Your task to perform on an android device: Check the news Image 0: 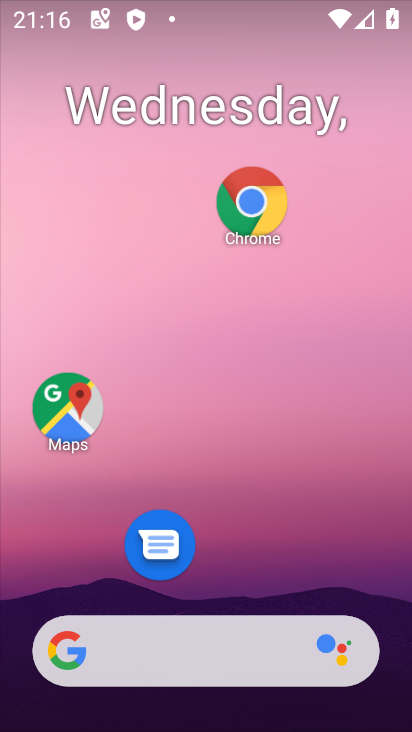
Step 0: click (206, 662)
Your task to perform on an android device: Check the news Image 1: 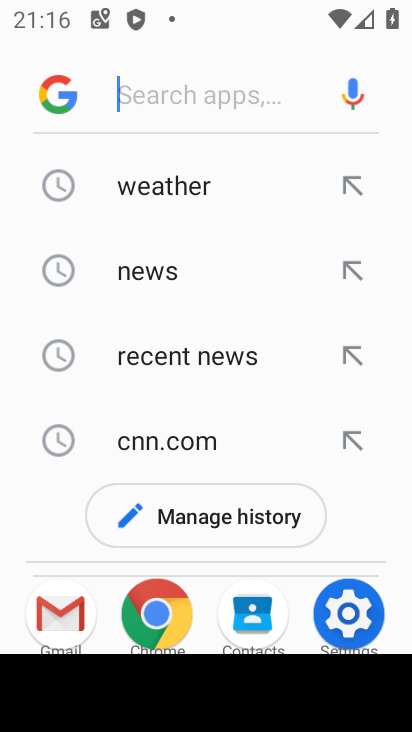
Step 1: click (200, 281)
Your task to perform on an android device: Check the news Image 2: 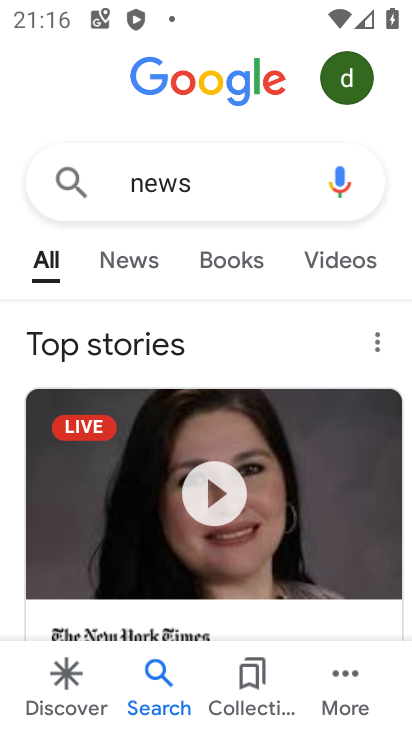
Step 2: click (113, 271)
Your task to perform on an android device: Check the news Image 3: 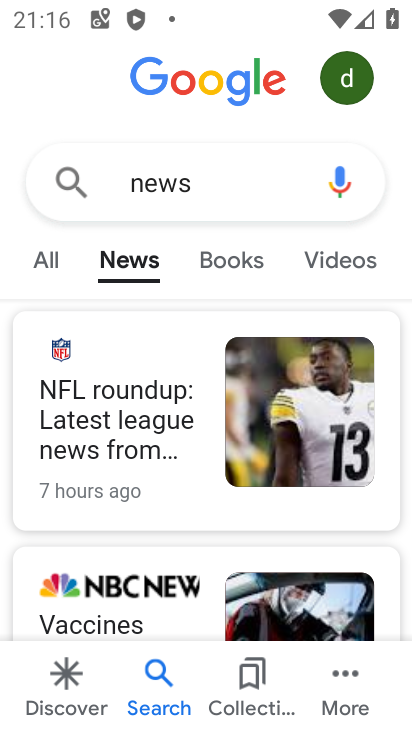
Step 3: task complete